Your task to perform on an android device: Search for vegetarian restaurants on Maps Image 0: 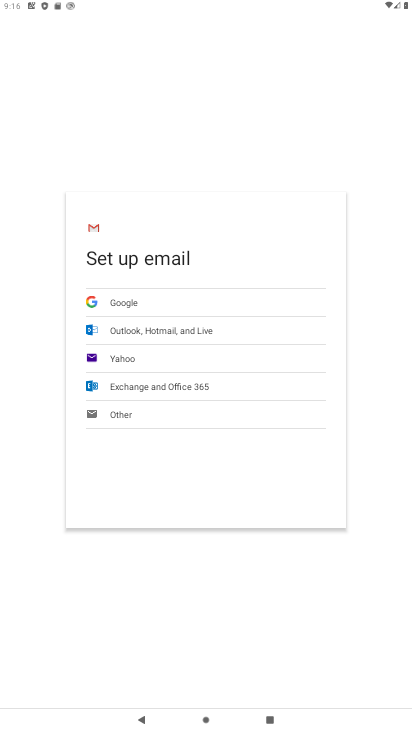
Step 0: press home button
Your task to perform on an android device: Search for vegetarian restaurants on Maps Image 1: 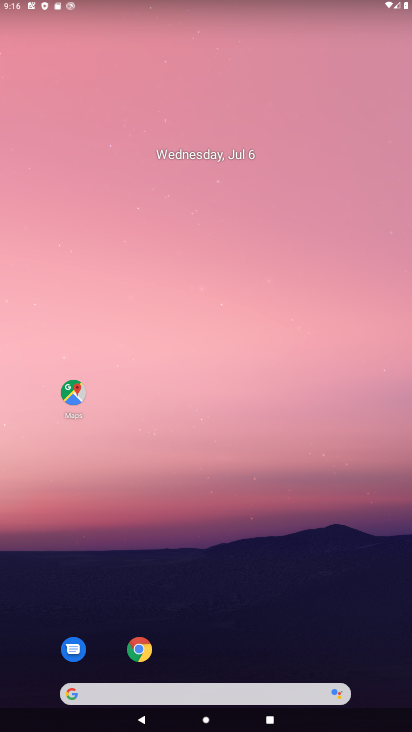
Step 1: drag from (220, 662) to (210, 106)
Your task to perform on an android device: Search for vegetarian restaurants on Maps Image 2: 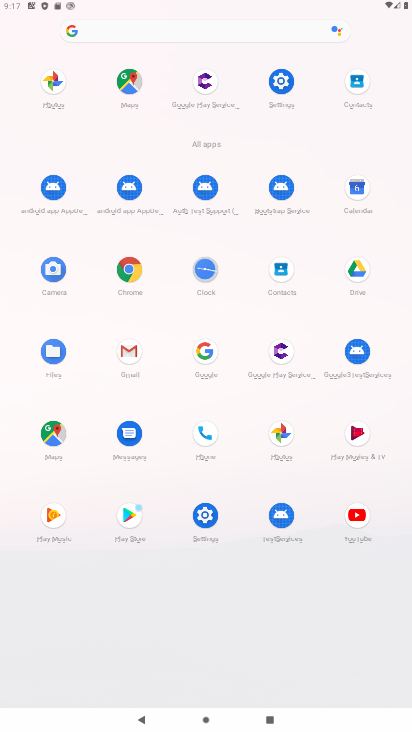
Step 2: click (128, 82)
Your task to perform on an android device: Search for vegetarian restaurants on Maps Image 3: 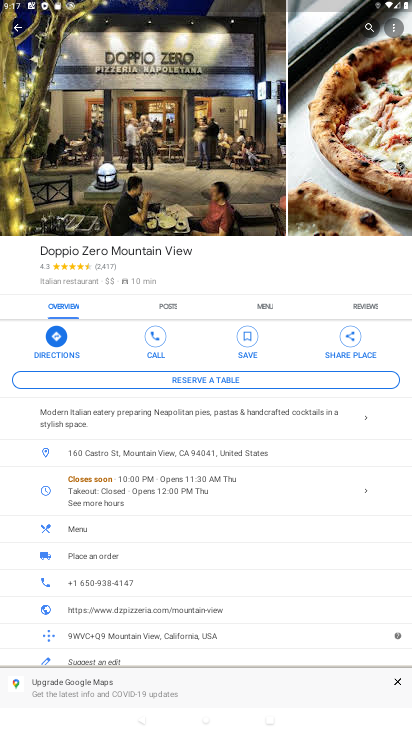
Step 3: press back button
Your task to perform on an android device: Search for vegetarian restaurants on Maps Image 4: 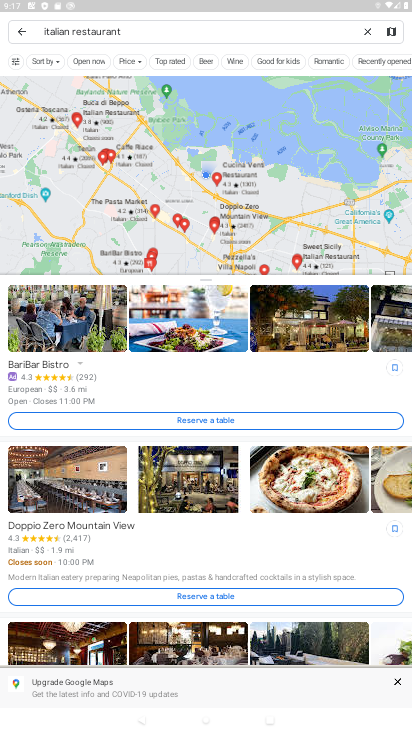
Step 4: click (366, 33)
Your task to perform on an android device: Search for vegetarian restaurants on Maps Image 5: 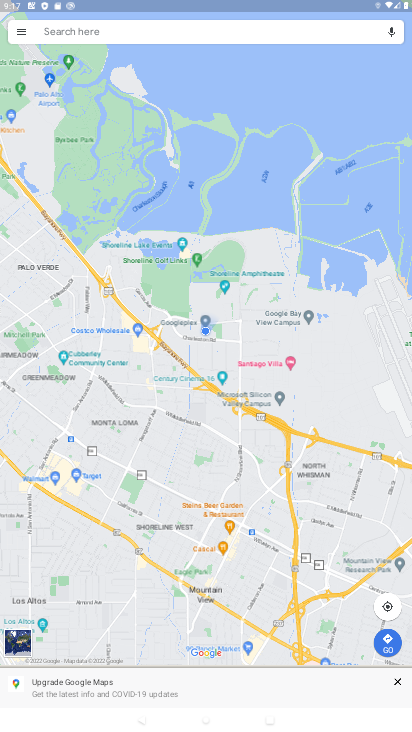
Step 5: click (176, 27)
Your task to perform on an android device: Search for vegetarian restaurants on Maps Image 6: 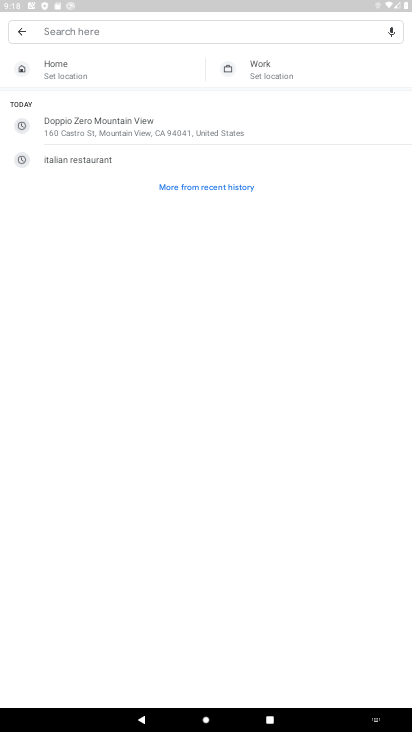
Step 6: type "vegetarian restaurants"
Your task to perform on an android device: Search for vegetarian restaurants on Maps Image 7: 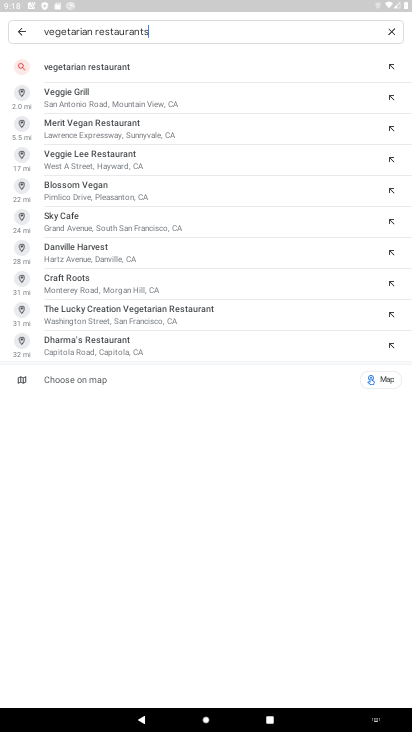
Step 7: click (107, 67)
Your task to perform on an android device: Search for vegetarian restaurants on Maps Image 8: 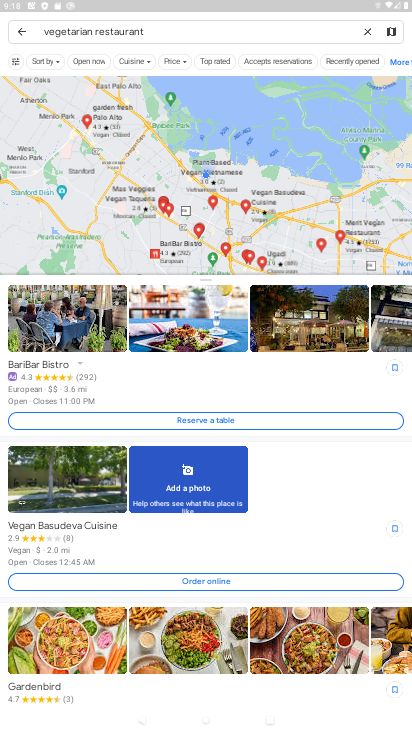
Step 8: drag from (116, 557) to (179, 364)
Your task to perform on an android device: Search for vegetarian restaurants on Maps Image 9: 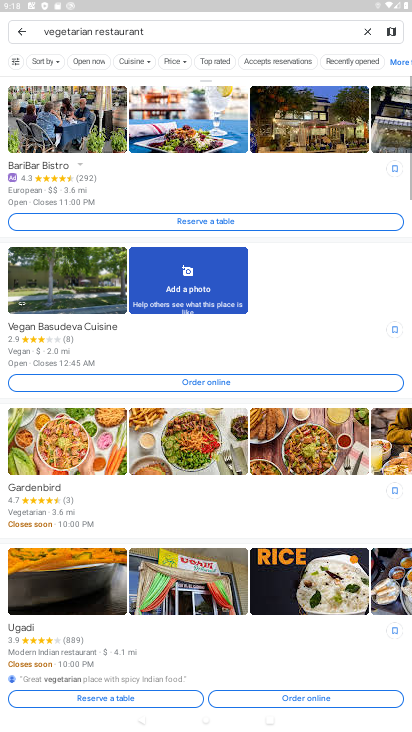
Step 9: click (81, 463)
Your task to perform on an android device: Search for vegetarian restaurants on Maps Image 10: 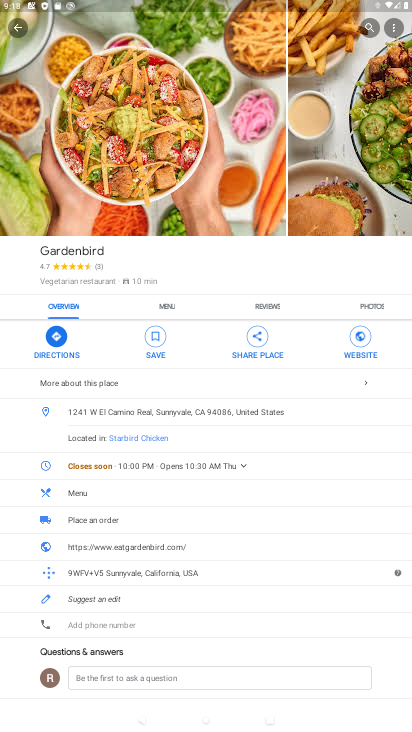
Step 10: task complete